Your task to perform on an android device: See recent photos Image 0: 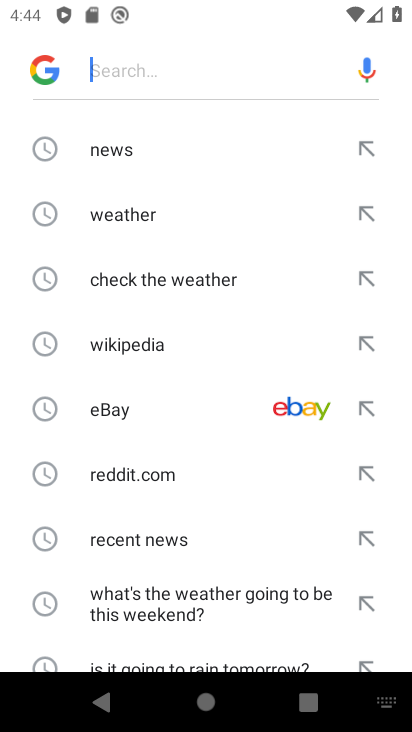
Step 0: press home button
Your task to perform on an android device: See recent photos Image 1: 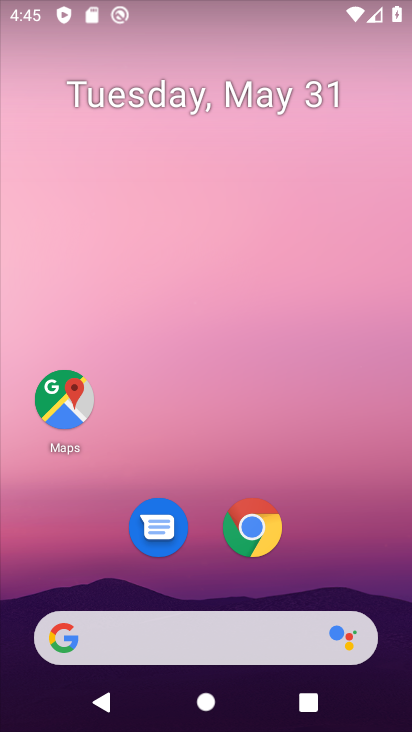
Step 1: drag from (303, 543) to (254, 71)
Your task to perform on an android device: See recent photos Image 2: 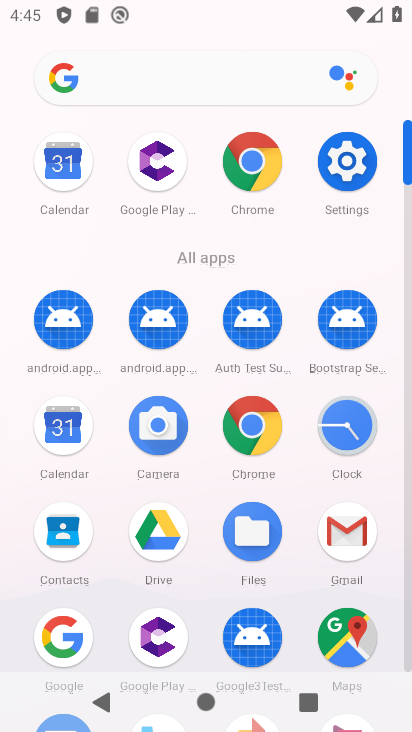
Step 2: drag from (188, 592) to (192, 130)
Your task to perform on an android device: See recent photos Image 3: 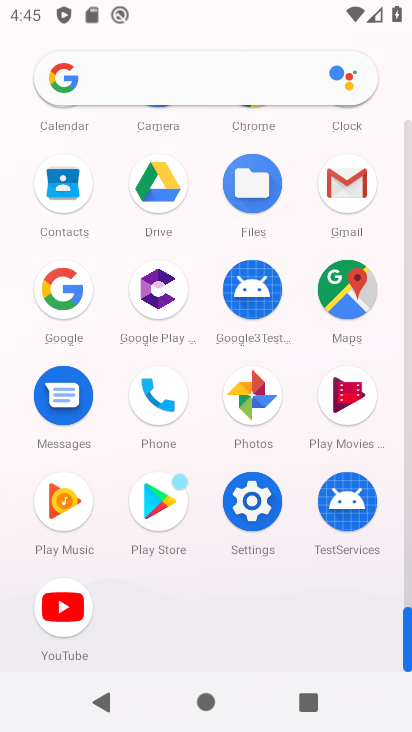
Step 3: click (258, 411)
Your task to perform on an android device: See recent photos Image 4: 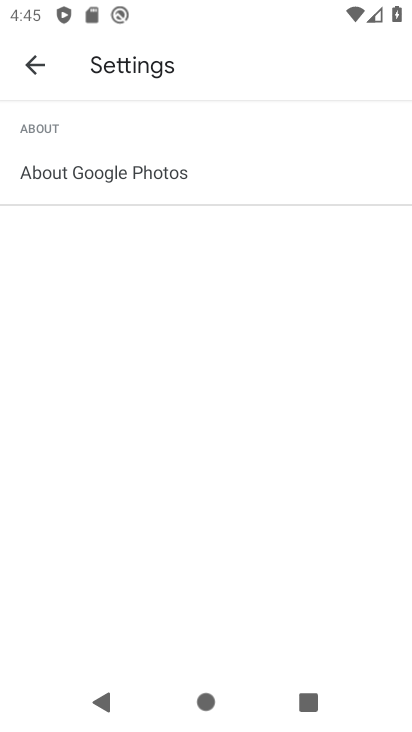
Step 4: click (26, 68)
Your task to perform on an android device: See recent photos Image 5: 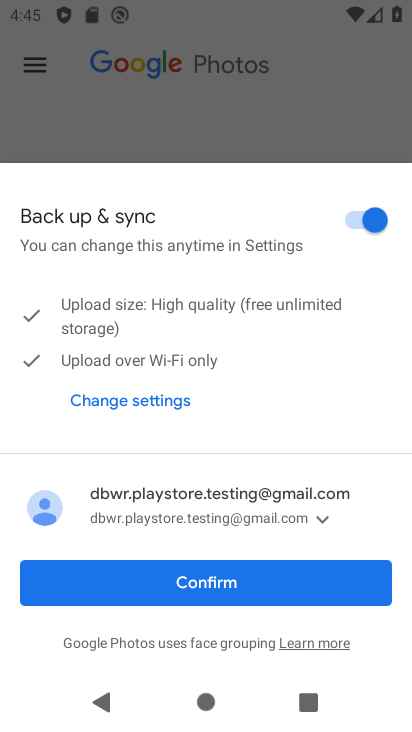
Step 5: click (155, 589)
Your task to perform on an android device: See recent photos Image 6: 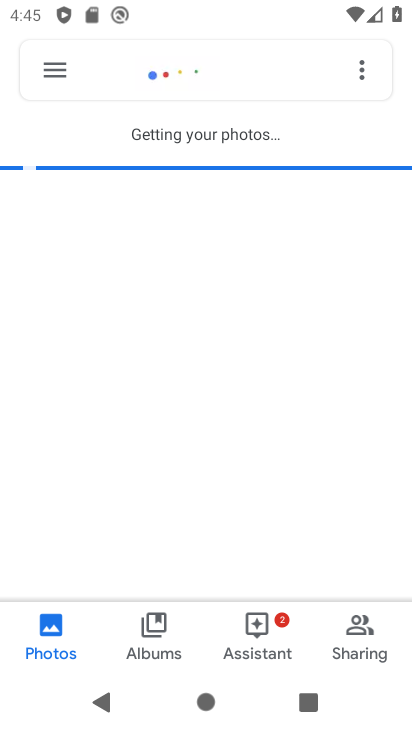
Step 6: click (50, 627)
Your task to perform on an android device: See recent photos Image 7: 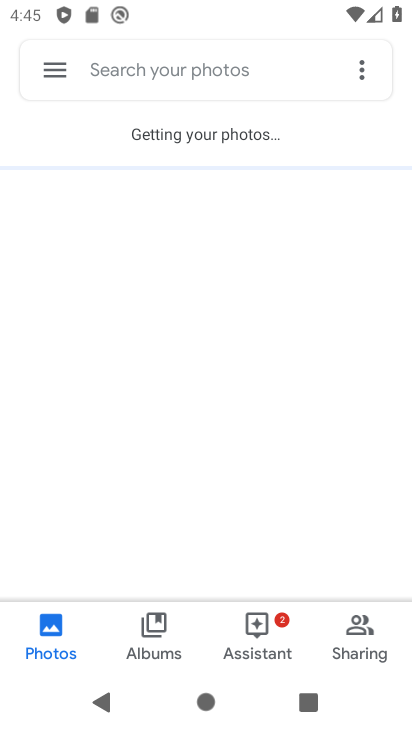
Step 7: click (51, 637)
Your task to perform on an android device: See recent photos Image 8: 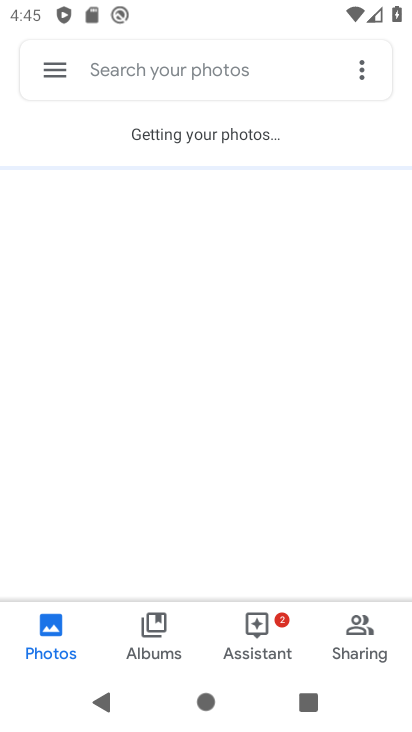
Step 8: task complete